Your task to perform on an android device: turn off location history Image 0: 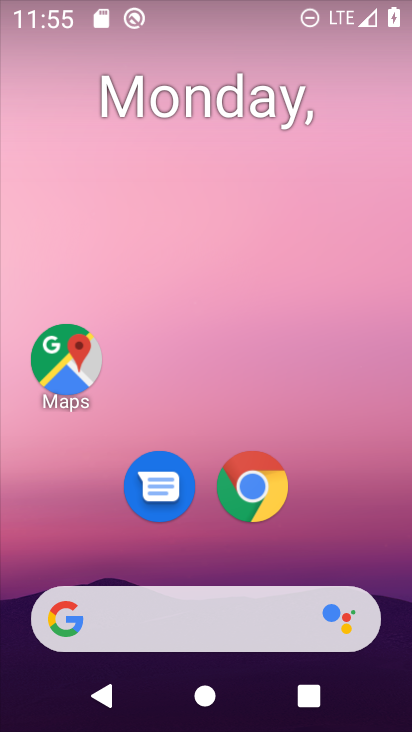
Step 0: press home button
Your task to perform on an android device: turn off location history Image 1: 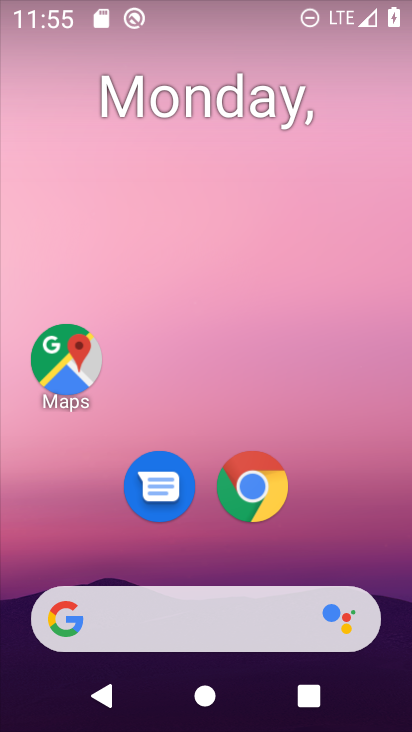
Step 1: drag from (17, 621) to (297, 167)
Your task to perform on an android device: turn off location history Image 2: 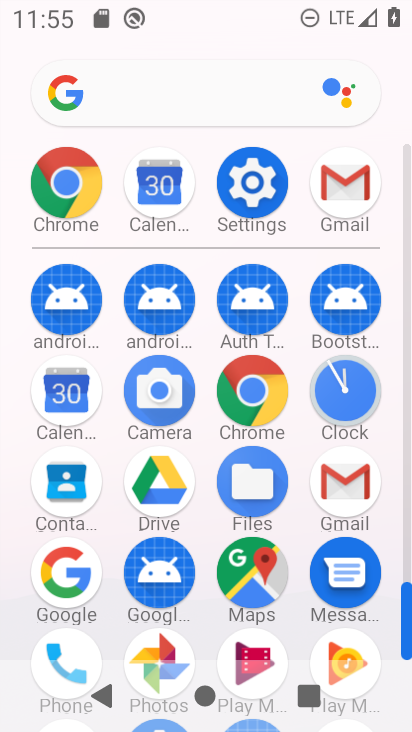
Step 2: click (245, 194)
Your task to perform on an android device: turn off location history Image 3: 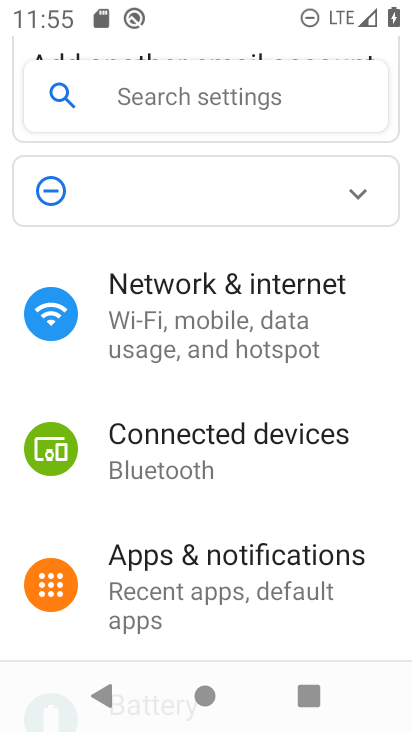
Step 3: drag from (14, 591) to (282, 253)
Your task to perform on an android device: turn off location history Image 4: 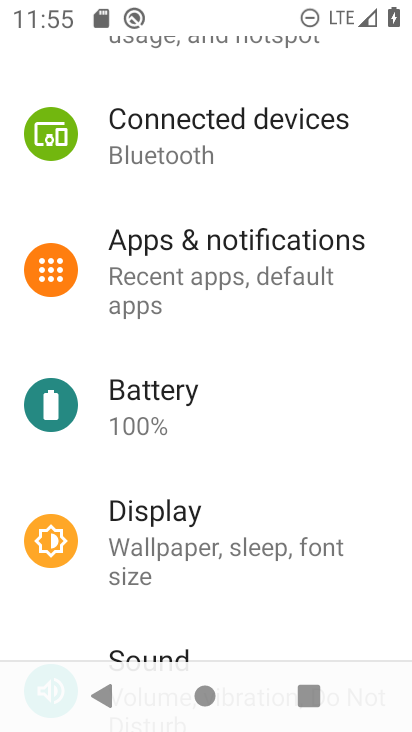
Step 4: drag from (39, 586) to (270, 322)
Your task to perform on an android device: turn off location history Image 5: 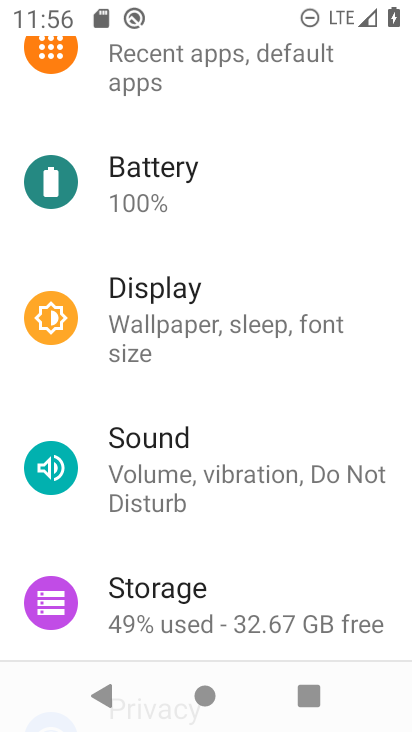
Step 5: drag from (31, 636) to (237, 327)
Your task to perform on an android device: turn off location history Image 6: 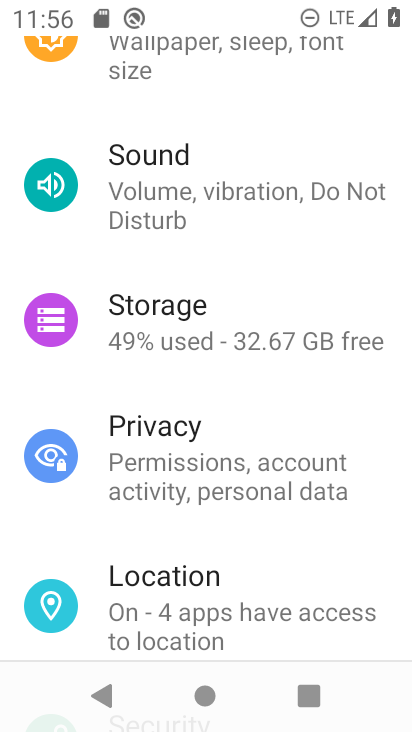
Step 6: click (162, 600)
Your task to perform on an android device: turn off location history Image 7: 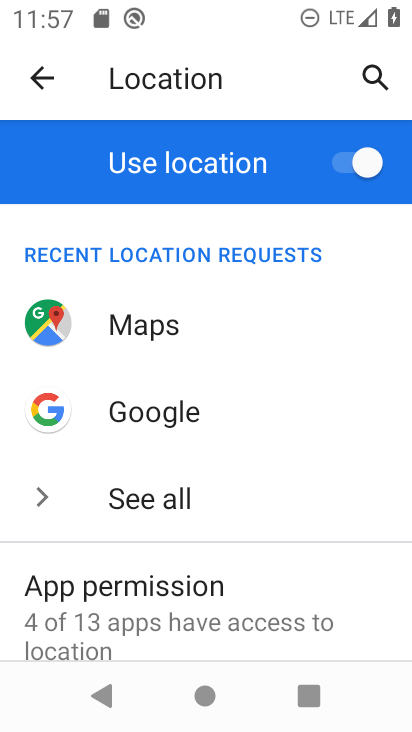
Step 7: drag from (11, 597) to (242, 190)
Your task to perform on an android device: turn off location history Image 8: 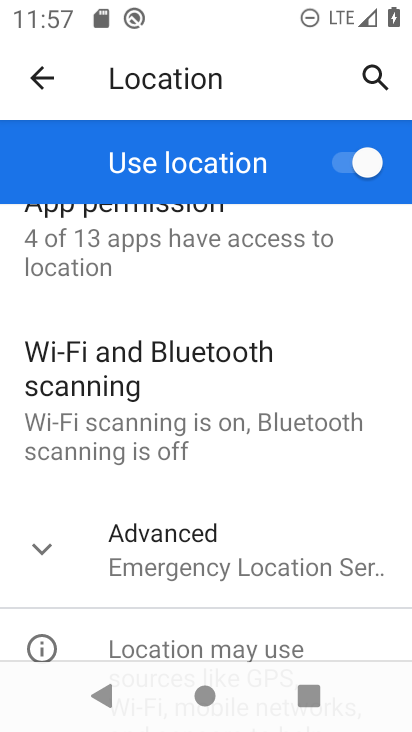
Step 8: drag from (18, 636) to (178, 360)
Your task to perform on an android device: turn off location history Image 9: 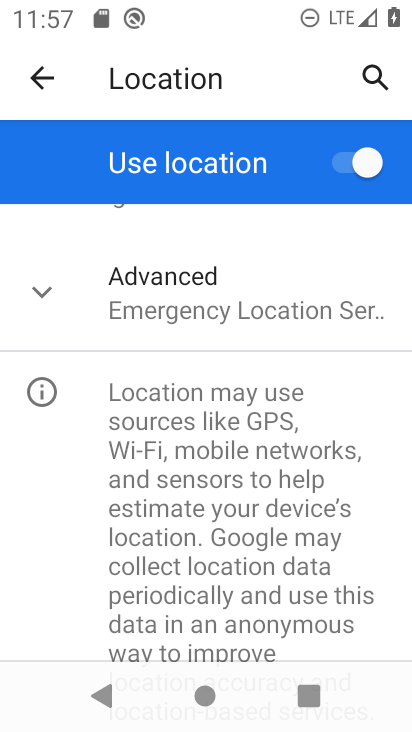
Step 9: click (190, 321)
Your task to perform on an android device: turn off location history Image 10: 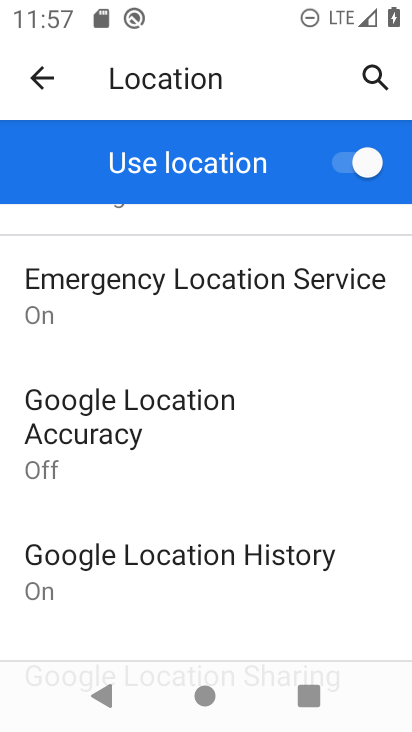
Step 10: click (102, 573)
Your task to perform on an android device: turn off location history Image 11: 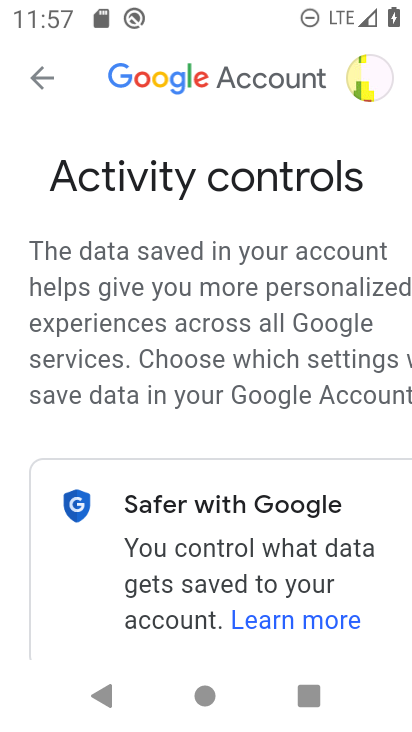
Step 11: drag from (0, 399) to (184, 152)
Your task to perform on an android device: turn off location history Image 12: 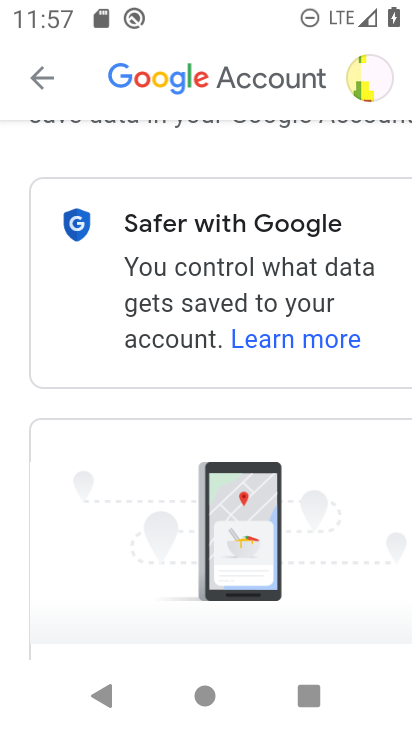
Step 12: drag from (17, 616) to (256, 230)
Your task to perform on an android device: turn off location history Image 13: 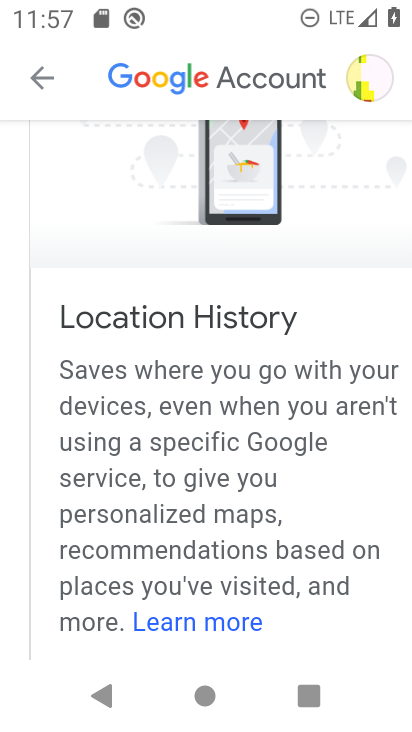
Step 13: drag from (2, 610) to (243, 321)
Your task to perform on an android device: turn off location history Image 14: 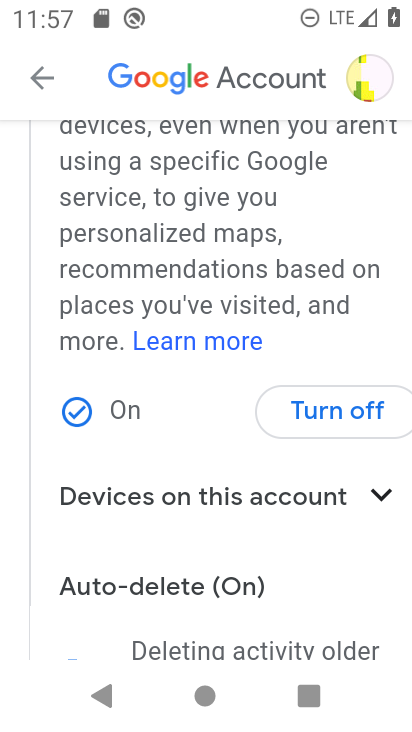
Step 14: click (297, 410)
Your task to perform on an android device: turn off location history Image 15: 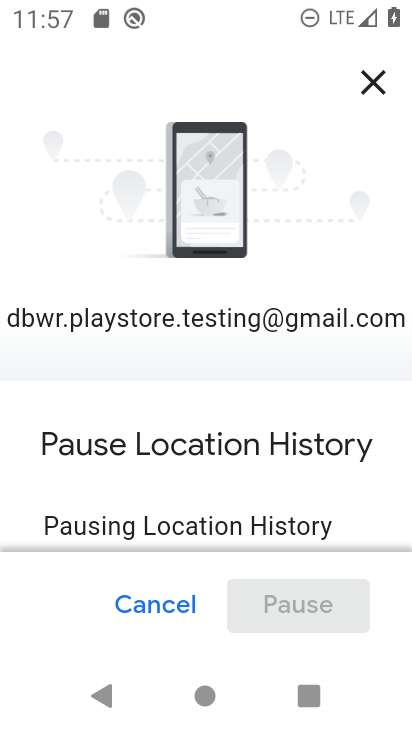
Step 15: drag from (17, 480) to (323, 159)
Your task to perform on an android device: turn off location history Image 16: 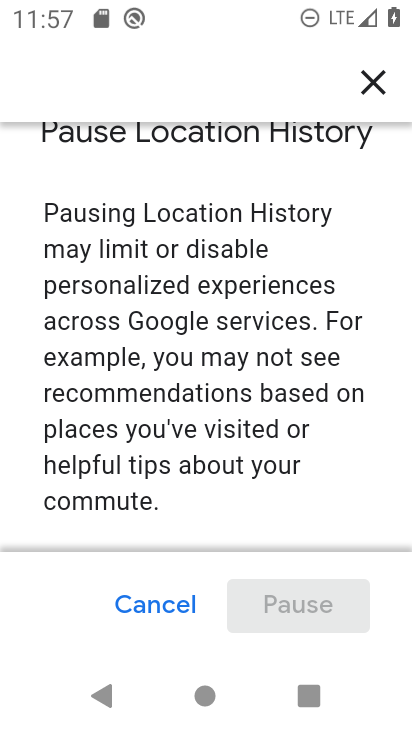
Step 16: drag from (22, 485) to (342, 103)
Your task to perform on an android device: turn off location history Image 17: 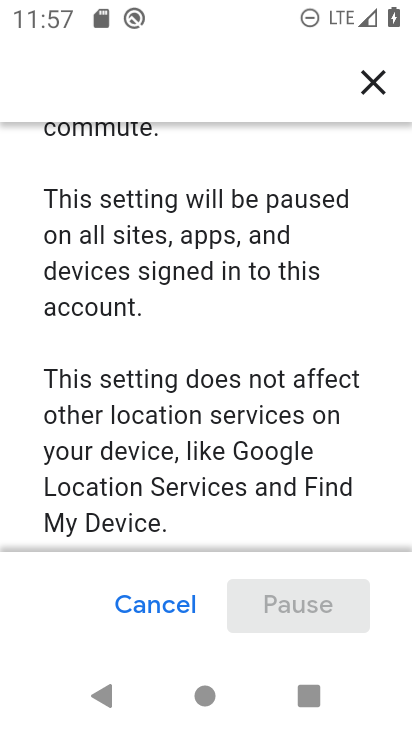
Step 17: drag from (17, 547) to (307, 107)
Your task to perform on an android device: turn off location history Image 18: 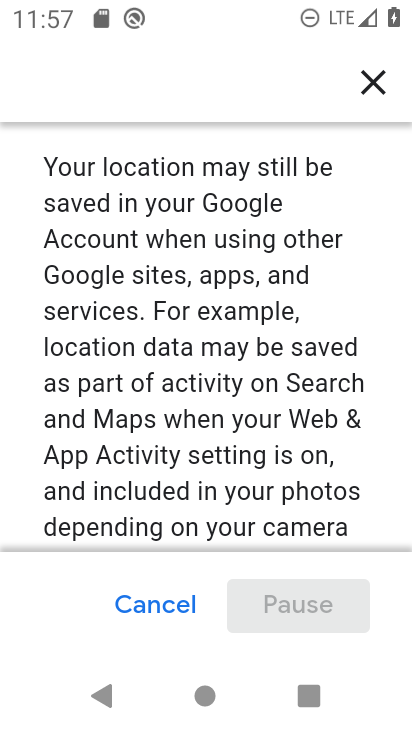
Step 18: drag from (21, 556) to (345, 144)
Your task to perform on an android device: turn off location history Image 19: 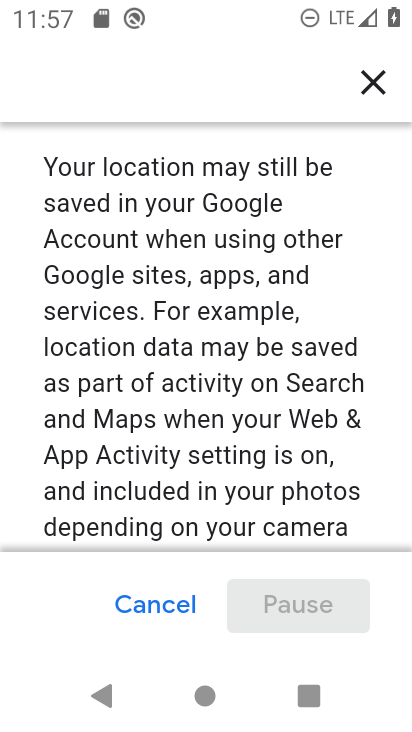
Step 19: drag from (17, 475) to (267, 165)
Your task to perform on an android device: turn off location history Image 20: 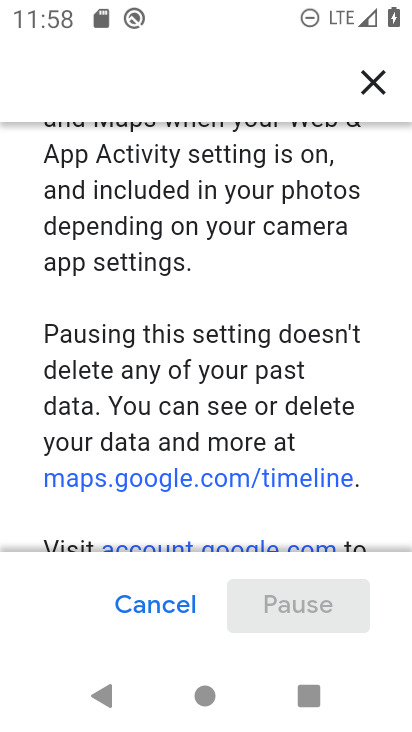
Step 20: drag from (179, 355) to (320, 172)
Your task to perform on an android device: turn off location history Image 21: 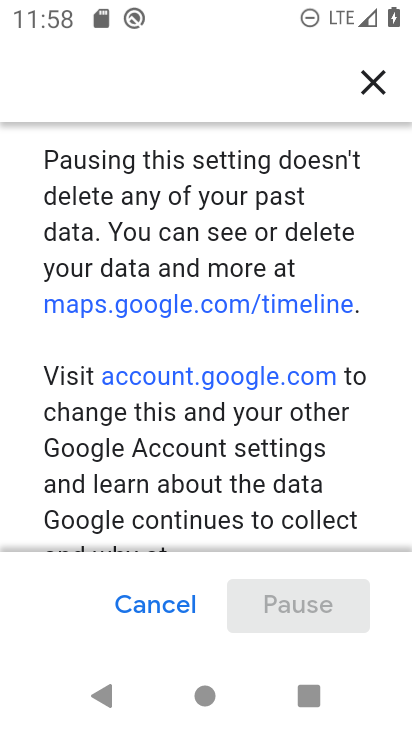
Step 21: drag from (1, 563) to (326, 232)
Your task to perform on an android device: turn off location history Image 22: 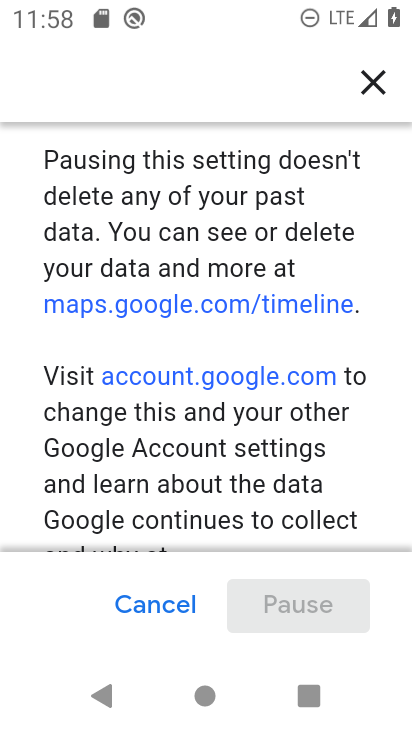
Step 22: drag from (44, 482) to (306, 131)
Your task to perform on an android device: turn off location history Image 23: 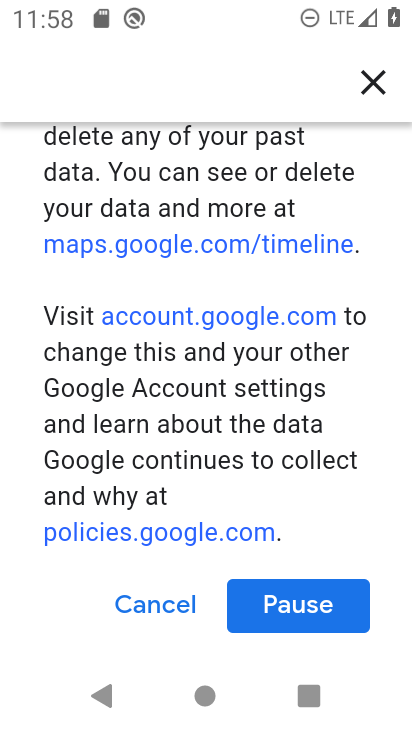
Step 23: click (274, 627)
Your task to perform on an android device: turn off location history Image 24: 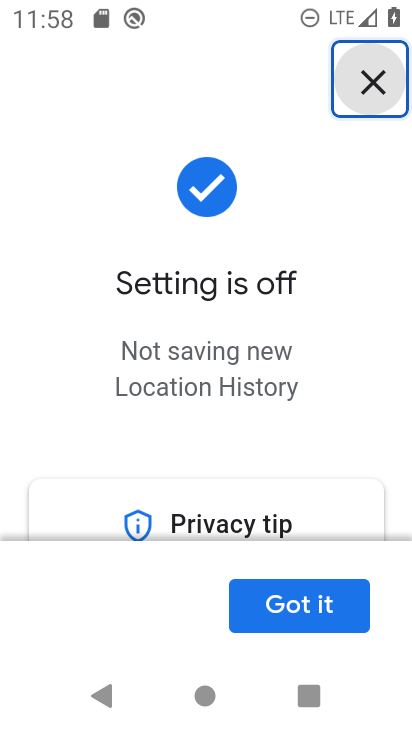
Step 24: click (323, 616)
Your task to perform on an android device: turn off location history Image 25: 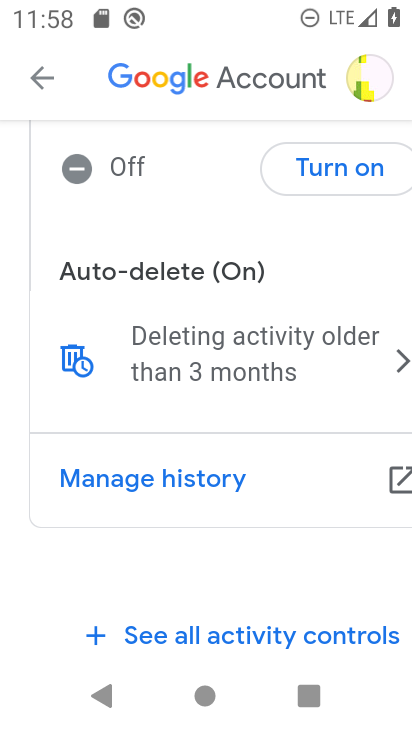
Step 25: task complete